Your task to perform on an android device: Is it going to rain this weekend? Image 0: 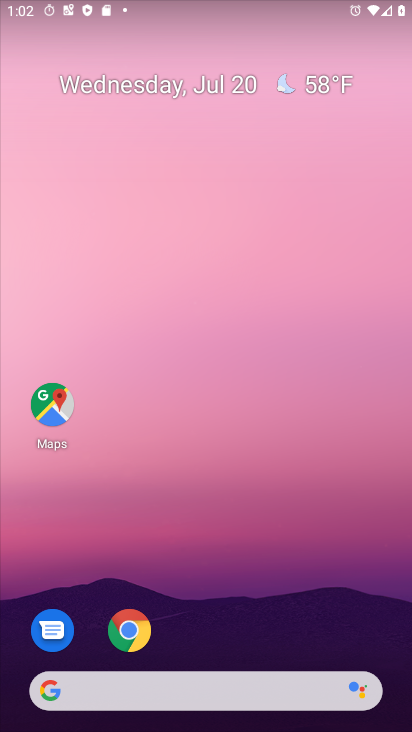
Step 0: drag from (190, 679) to (336, 89)
Your task to perform on an android device: Is it going to rain this weekend? Image 1: 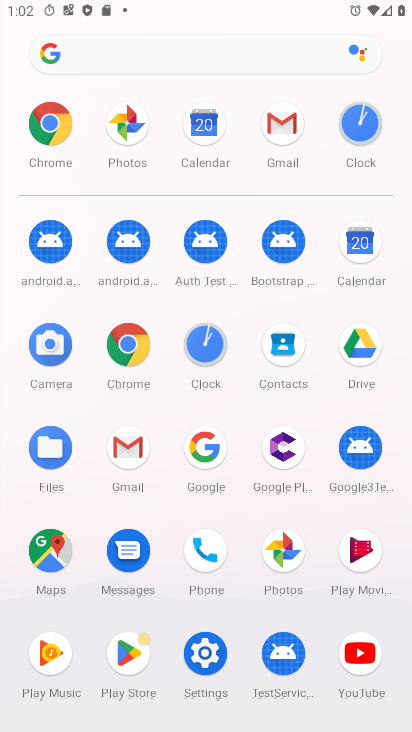
Step 1: click (204, 460)
Your task to perform on an android device: Is it going to rain this weekend? Image 2: 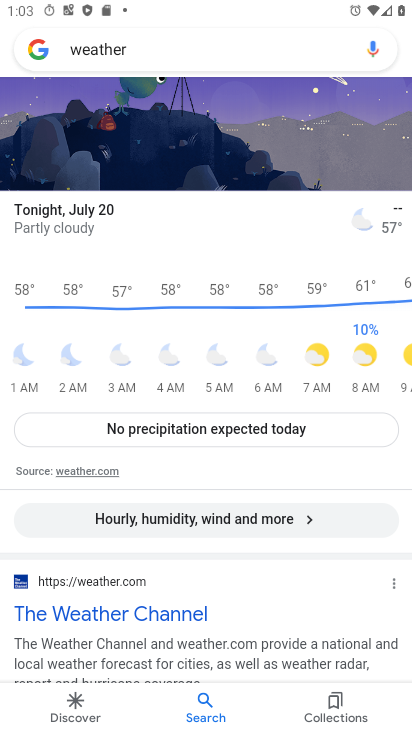
Step 2: task complete